Your task to perform on an android device: empty trash in google photos Image 0: 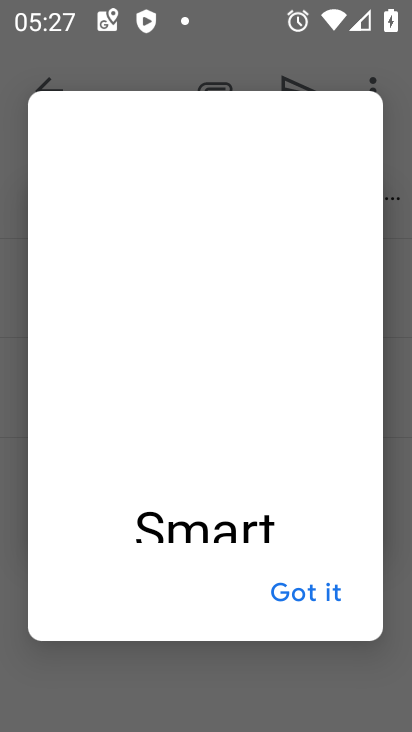
Step 0: press home button
Your task to perform on an android device: empty trash in google photos Image 1: 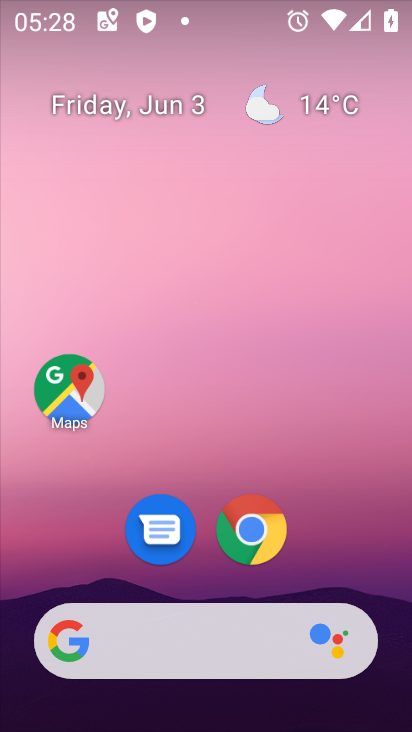
Step 1: drag from (211, 574) to (252, 126)
Your task to perform on an android device: empty trash in google photos Image 2: 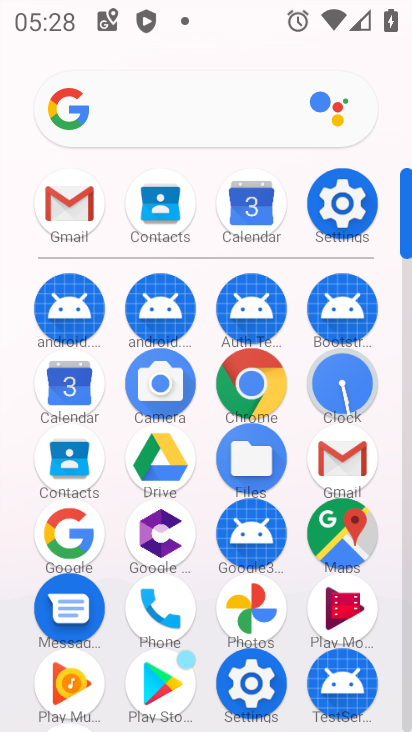
Step 2: click (252, 601)
Your task to perform on an android device: empty trash in google photos Image 3: 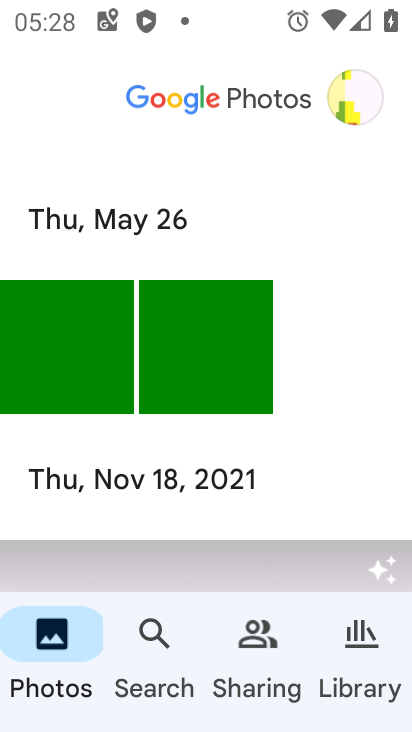
Step 3: click (363, 629)
Your task to perform on an android device: empty trash in google photos Image 4: 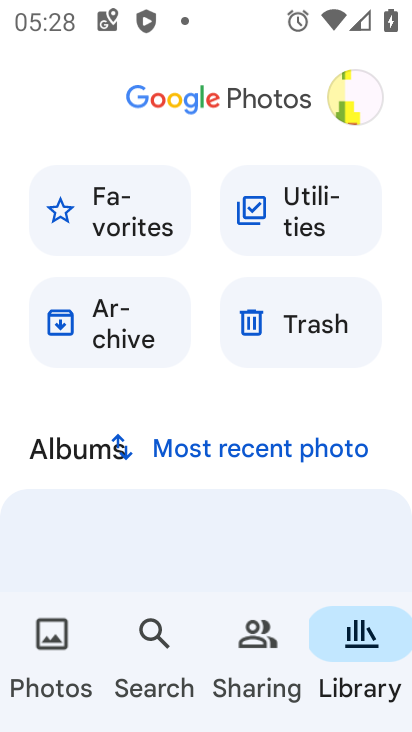
Step 4: click (274, 325)
Your task to perform on an android device: empty trash in google photos Image 5: 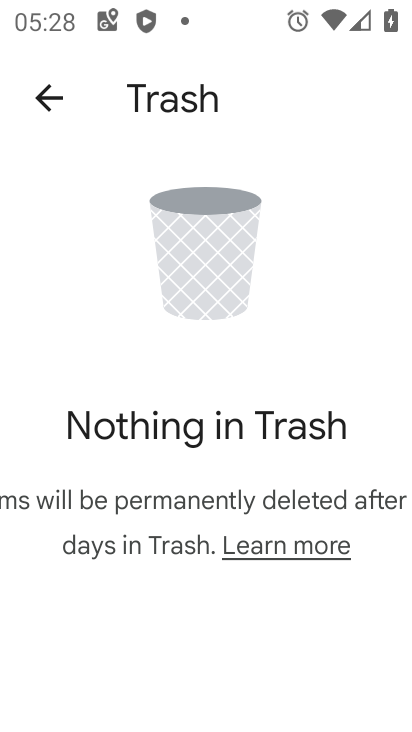
Step 5: task complete